Your task to perform on an android device: Open the phone app and click the voicemail tab. Image 0: 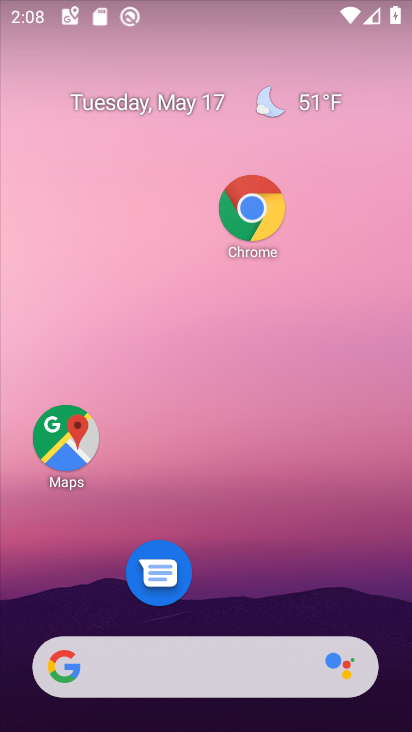
Step 0: drag from (228, 606) to (207, 88)
Your task to perform on an android device: Open the phone app and click the voicemail tab. Image 1: 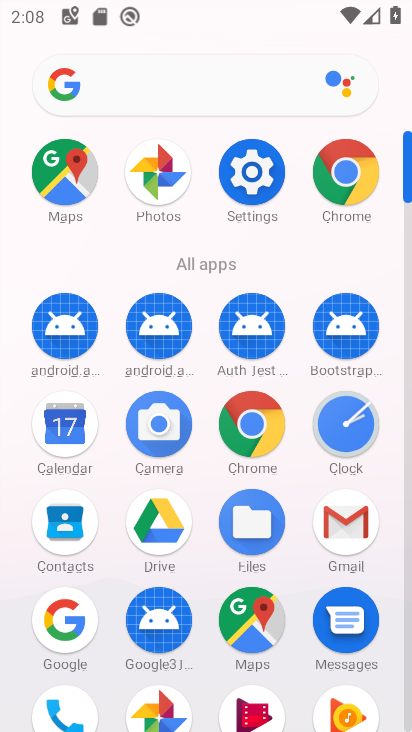
Step 1: click (80, 689)
Your task to perform on an android device: Open the phone app and click the voicemail tab. Image 2: 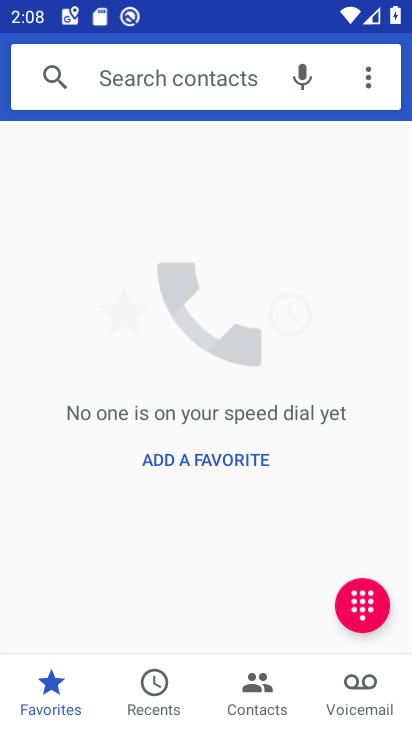
Step 2: click (349, 685)
Your task to perform on an android device: Open the phone app and click the voicemail tab. Image 3: 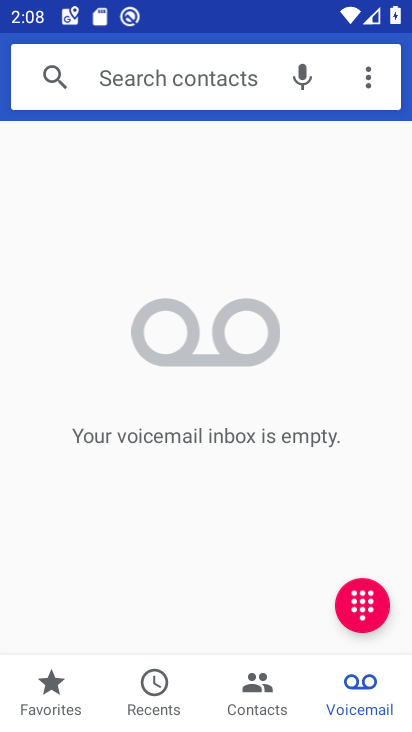
Step 3: task complete